Your task to perform on an android device: Open Chrome and go to settings Image 0: 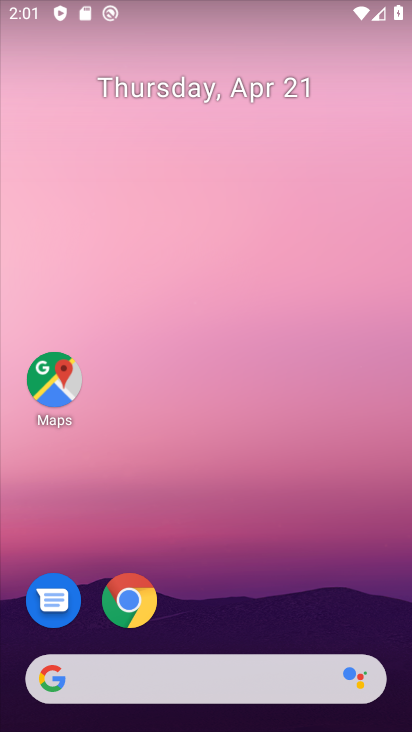
Step 0: click (133, 600)
Your task to perform on an android device: Open Chrome and go to settings Image 1: 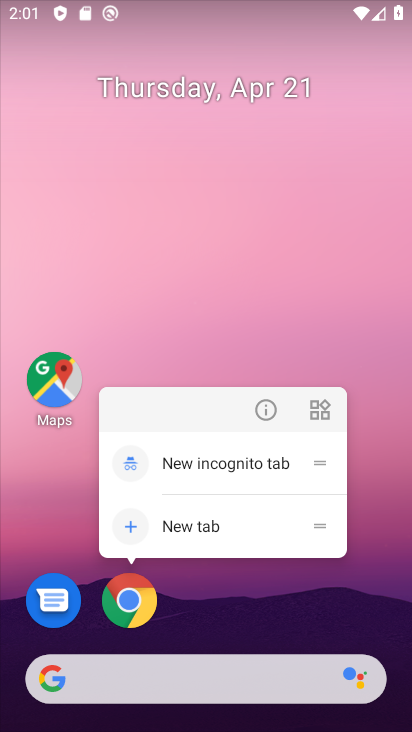
Step 1: click (125, 604)
Your task to perform on an android device: Open Chrome and go to settings Image 2: 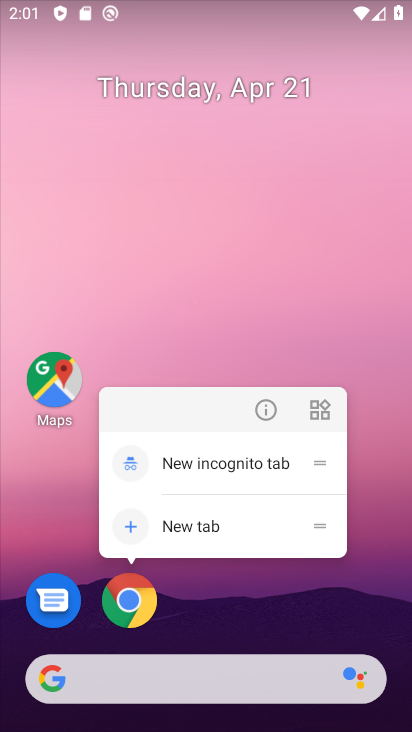
Step 2: click (144, 591)
Your task to perform on an android device: Open Chrome and go to settings Image 3: 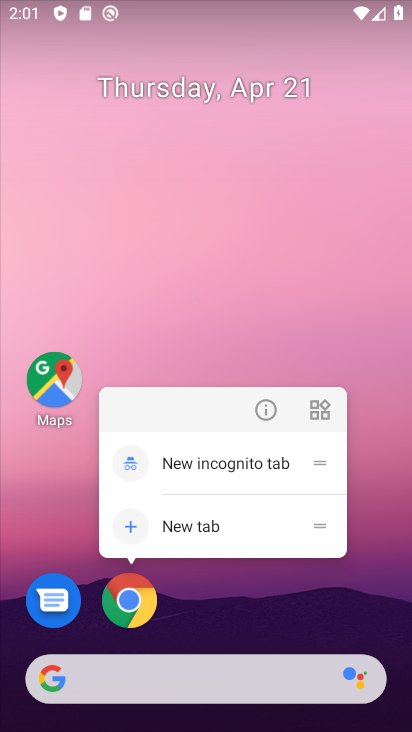
Step 3: click (112, 591)
Your task to perform on an android device: Open Chrome and go to settings Image 4: 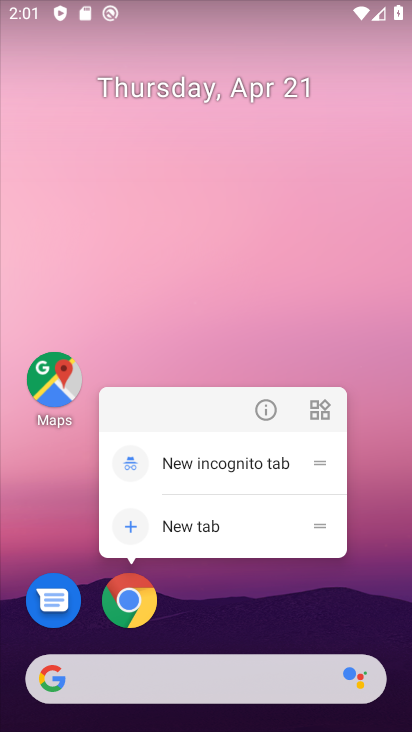
Step 4: click (122, 611)
Your task to perform on an android device: Open Chrome and go to settings Image 5: 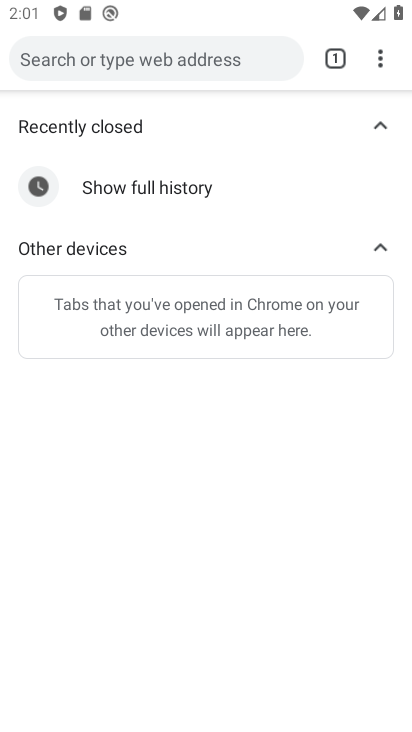
Step 5: task complete